Your task to perform on an android device: Clear the cart on amazon. Search for macbook air on amazon, select the first entry, add it to the cart, then select checkout. Image 0: 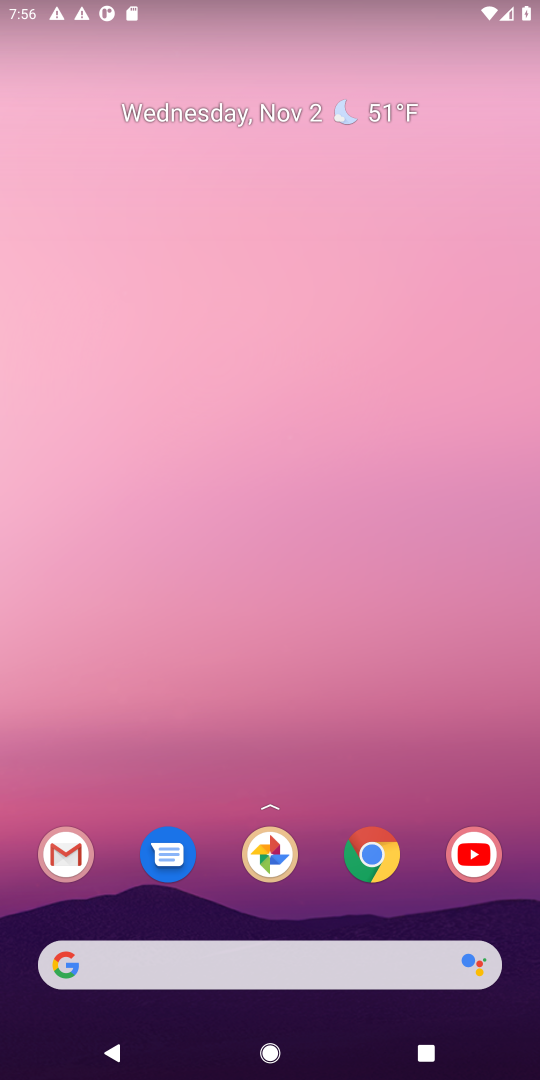
Step 0: click (367, 868)
Your task to perform on an android device: Clear the cart on amazon. Search for macbook air on amazon, select the first entry, add it to the cart, then select checkout. Image 1: 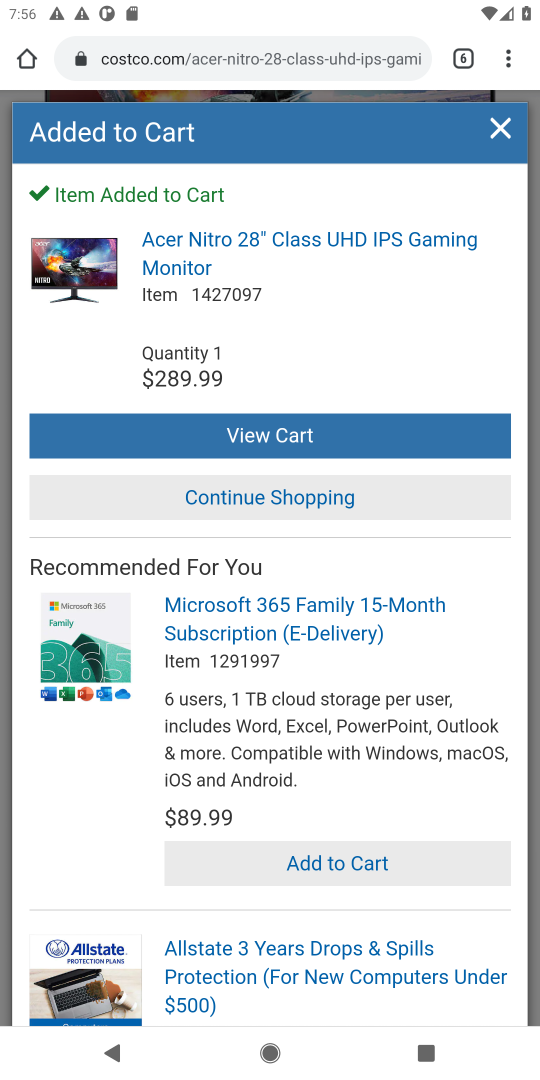
Step 1: click (503, 131)
Your task to perform on an android device: Clear the cart on amazon. Search for macbook air on amazon, select the first entry, add it to the cart, then select checkout. Image 2: 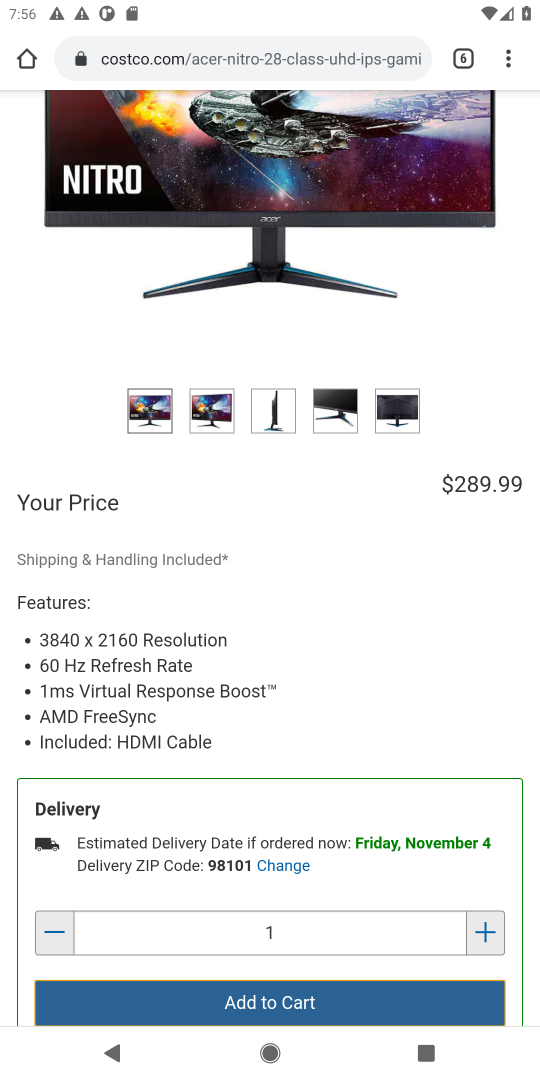
Step 2: click (465, 53)
Your task to perform on an android device: Clear the cart on amazon. Search for macbook air on amazon, select the first entry, add it to the cart, then select checkout. Image 3: 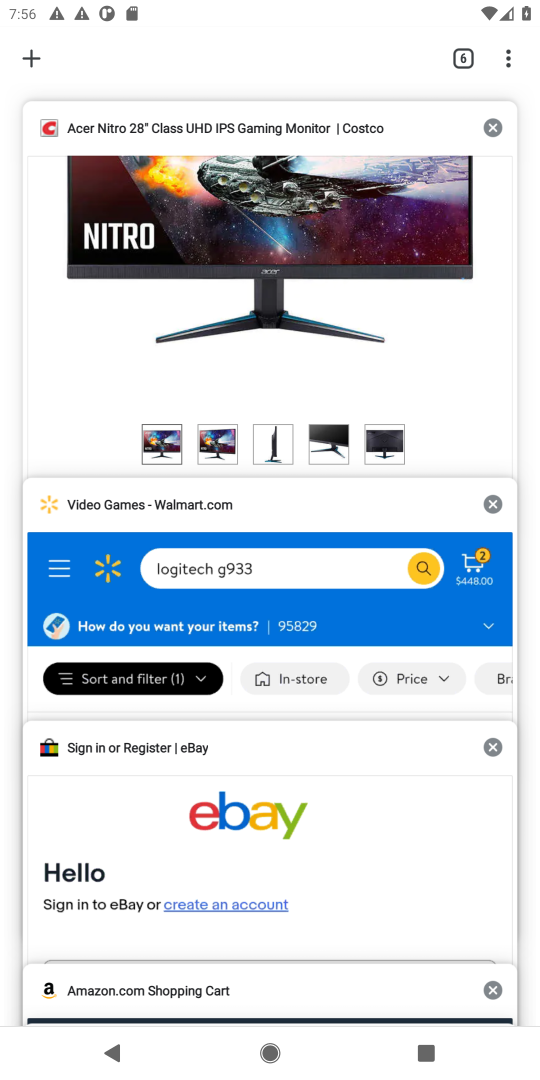
Step 3: drag from (251, 868) to (322, 473)
Your task to perform on an android device: Clear the cart on amazon. Search for macbook air on amazon, select the first entry, add it to the cart, then select checkout. Image 4: 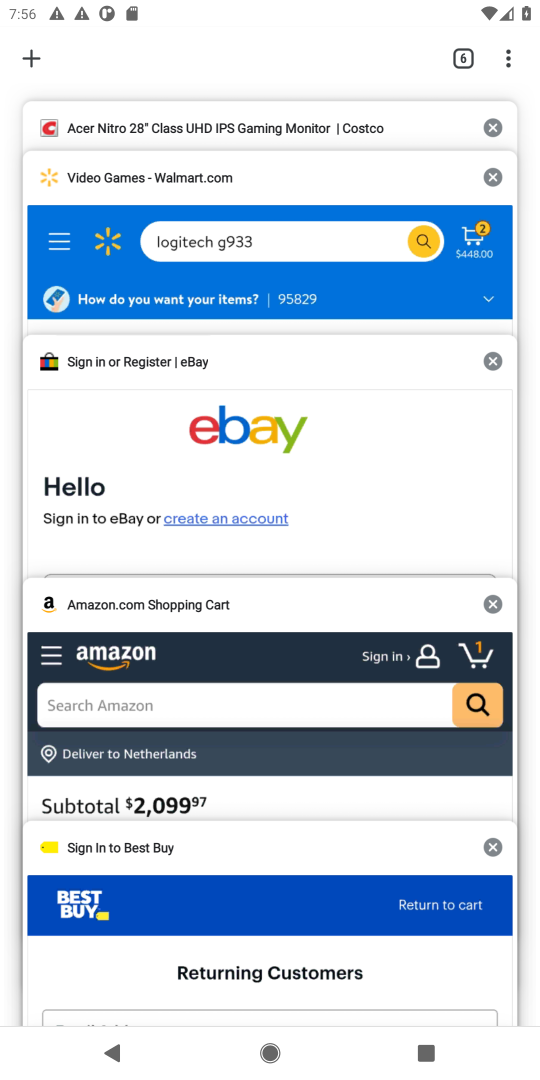
Step 4: click (234, 788)
Your task to perform on an android device: Clear the cart on amazon. Search for macbook air on amazon, select the first entry, add it to the cart, then select checkout. Image 5: 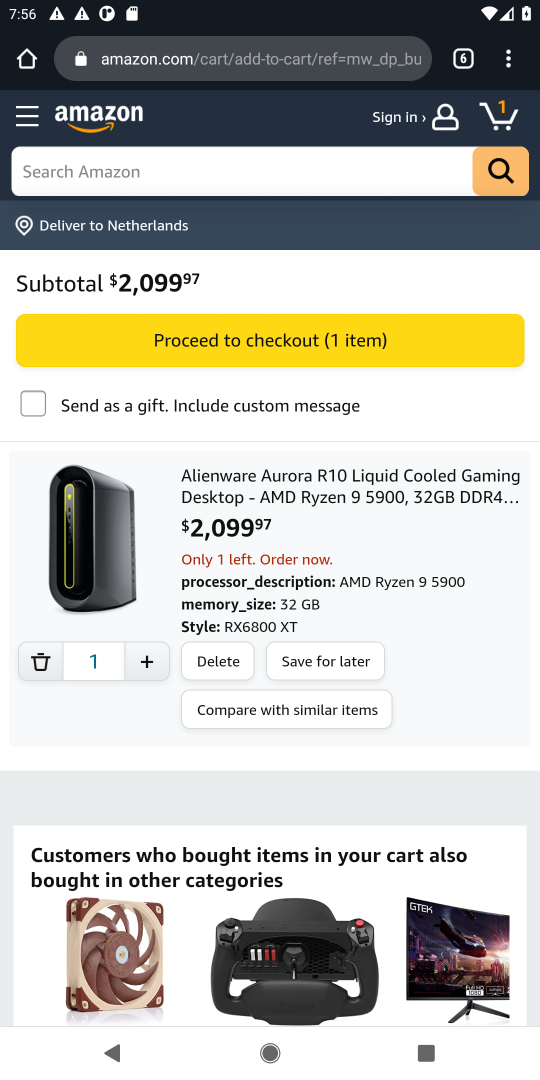
Step 5: click (232, 172)
Your task to perform on an android device: Clear the cart on amazon. Search for macbook air on amazon, select the first entry, add it to the cart, then select checkout. Image 6: 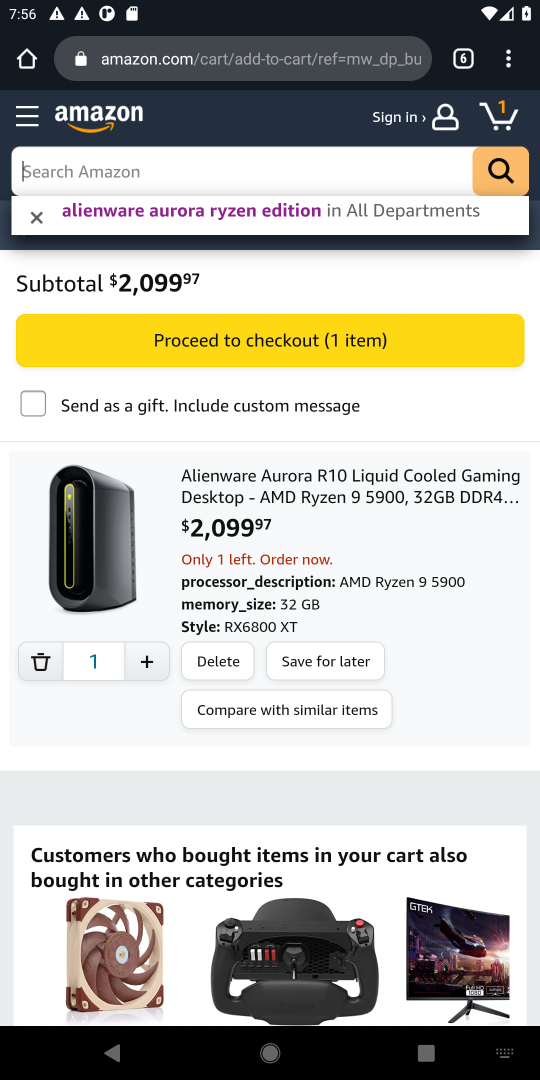
Step 6: type "macbook air"
Your task to perform on an android device: Clear the cart on amazon. Search for macbook air on amazon, select the first entry, add it to the cart, then select checkout. Image 7: 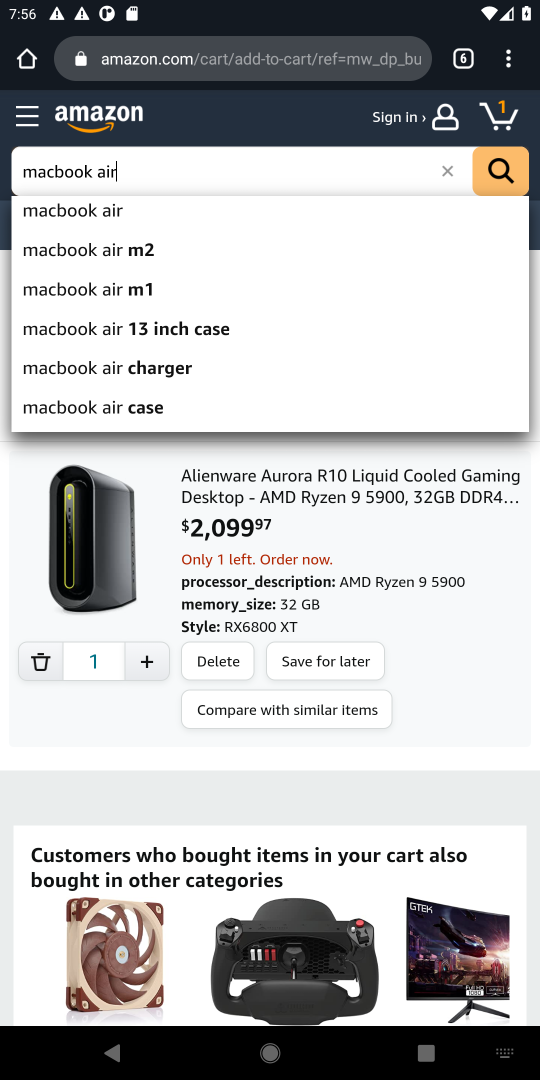
Step 7: click (99, 211)
Your task to perform on an android device: Clear the cart on amazon. Search for macbook air on amazon, select the first entry, add it to the cart, then select checkout. Image 8: 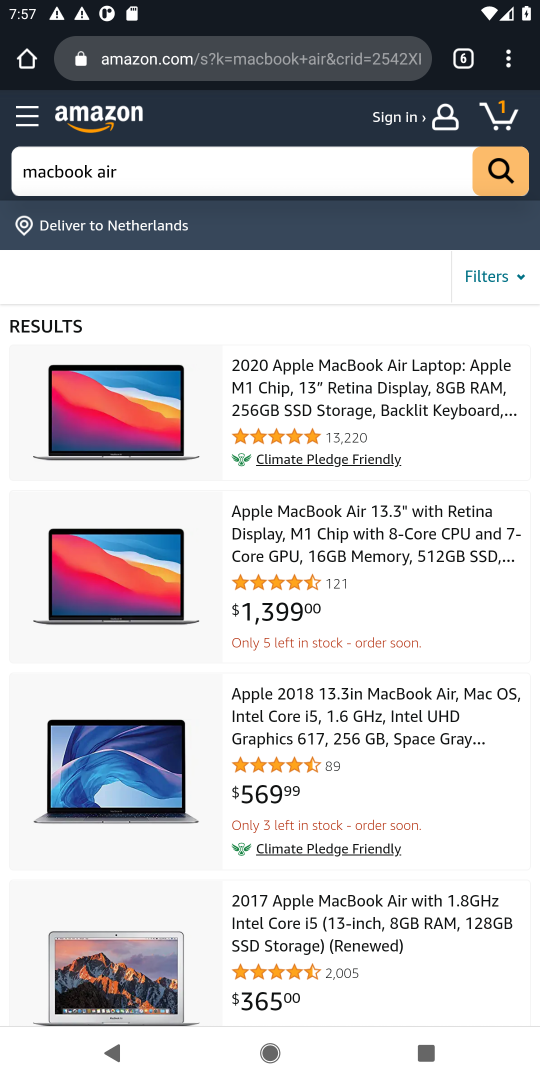
Step 8: click (303, 542)
Your task to perform on an android device: Clear the cart on amazon. Search for macbook air on amazon, select the first entry, add it to the cart, then select checkout. Image 9: 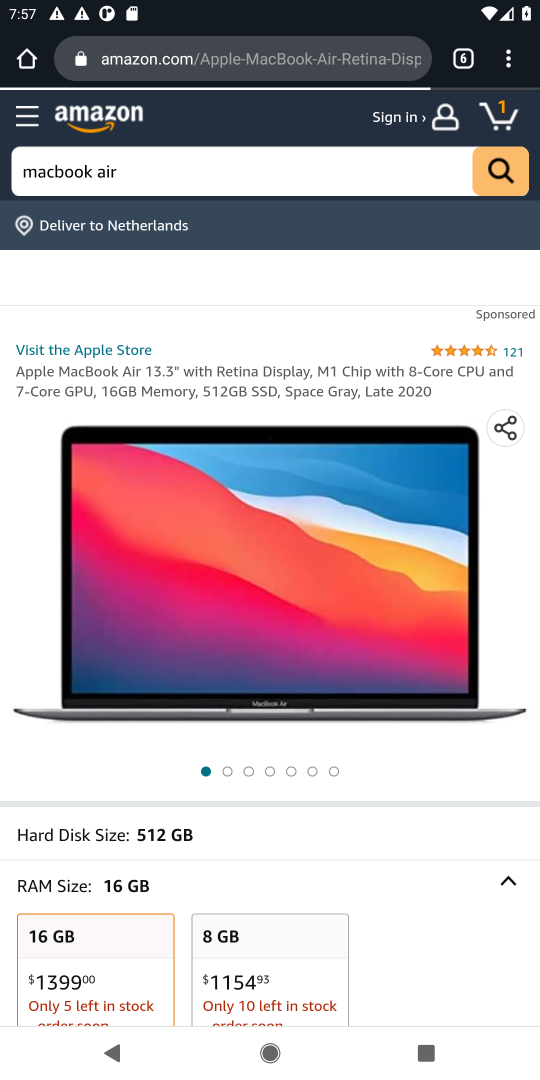
Step 9: drag from (440, 897) to (346, 32)
Your task to perform on an android device: Clear the cart on amazon. Search for macbook air on amazon, select the first entry, add it to the cart, then select checkout. Image 10: 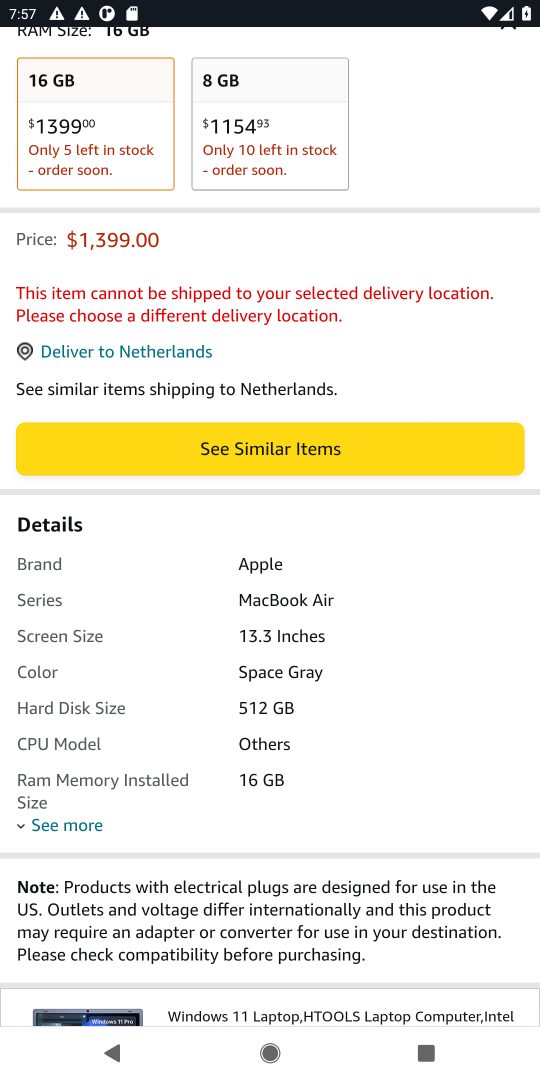
Step 10: click (248, 449)
Your task to perform on an android device: Clear the cart on amazon. Search for macbook air on amazon, select the first entry, add it to the cart, then select checkout. Image 11: 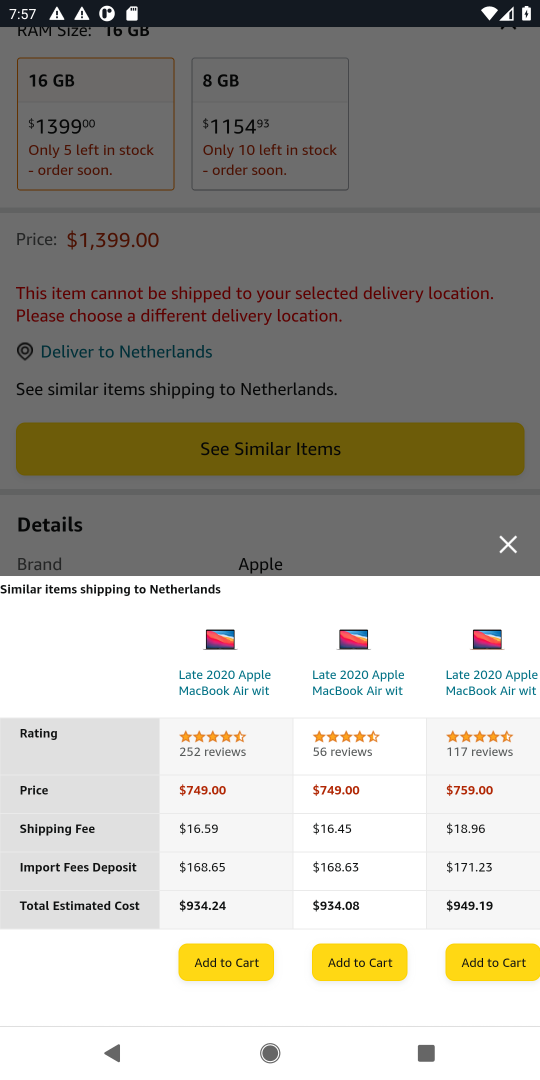
Step 11: click (220, 953)
Your task to perform on an android device: Clear the cart on amazon. Search for macbook air on amazon, select the first entry, add it to the cart, then select checkout. Image 12: 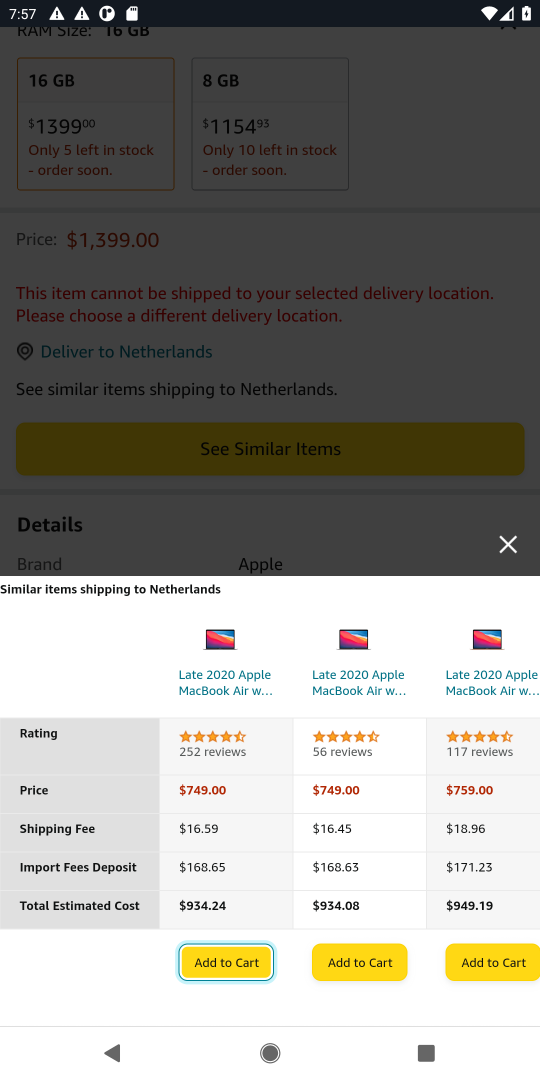
Step 12: click (234, 968)
Your task to perform on an android device: Clear the cart on amazon. Search for macbook air on amazon, select the first entry, add it to the cart, then select checkout. Image 13: 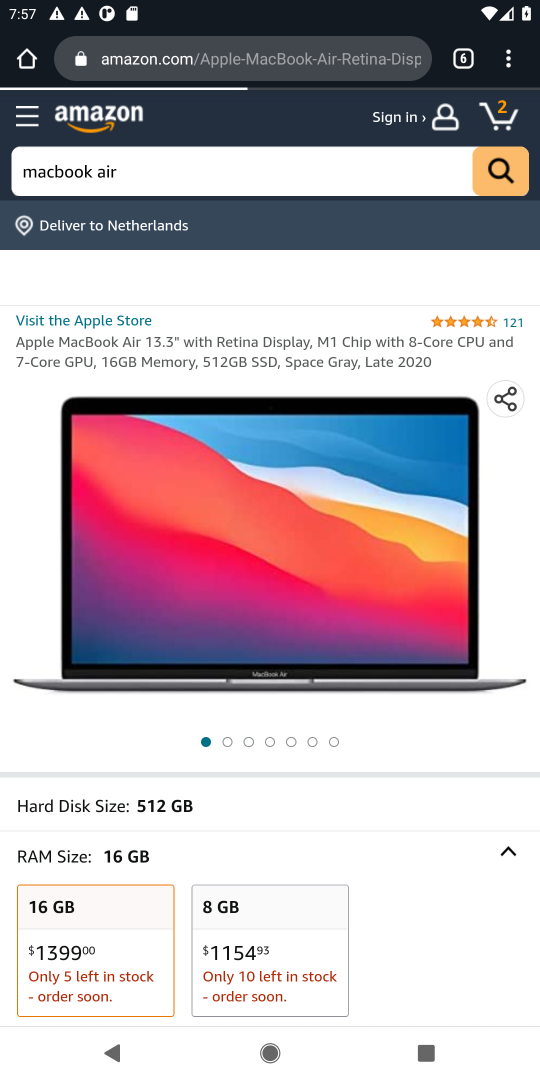
Step 13: task complete